Your task to perform on an android device: change the upload size in google photos Image 0: 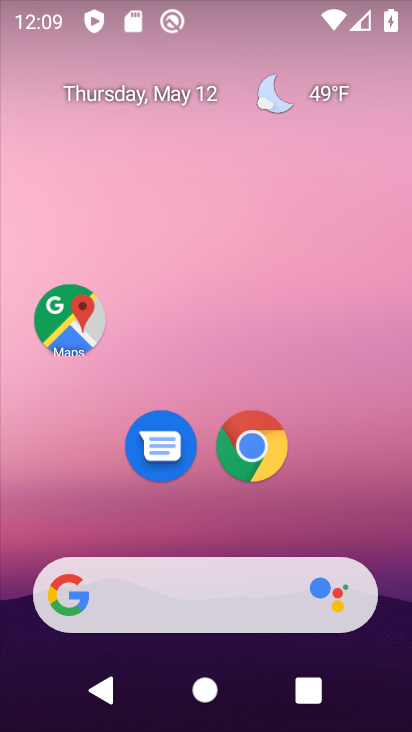
Step 0: press home button
Your task to perform on an android device: change the upload size in google photos Image 1: 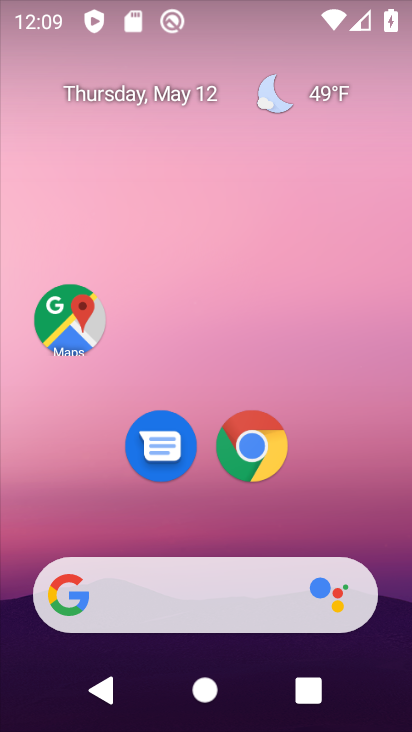
Step 1: press home button
Your task to perform on an android device: change the upload size in google photos Image 2: 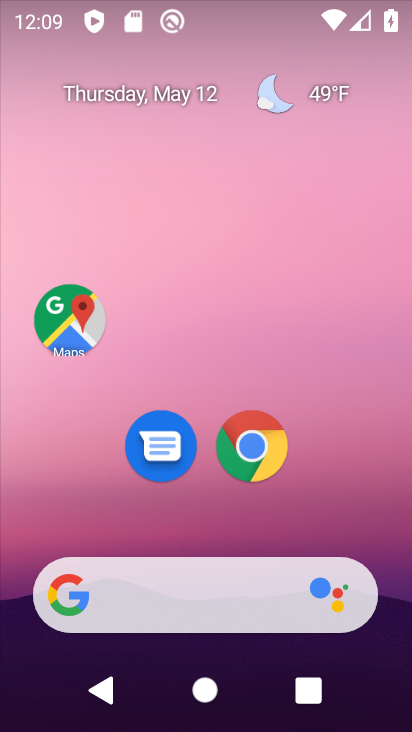
Step 2: drag from (365, 482) to (365, 0)
Your task to perform on an android device: change the upload size in google photos Image 3: 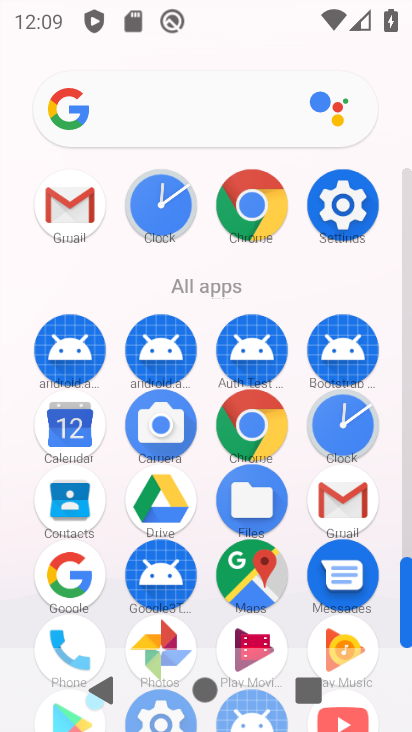
Step 3: click (165, 621)
Your task to perform on an android device: change the upload size in google photos Image 4: 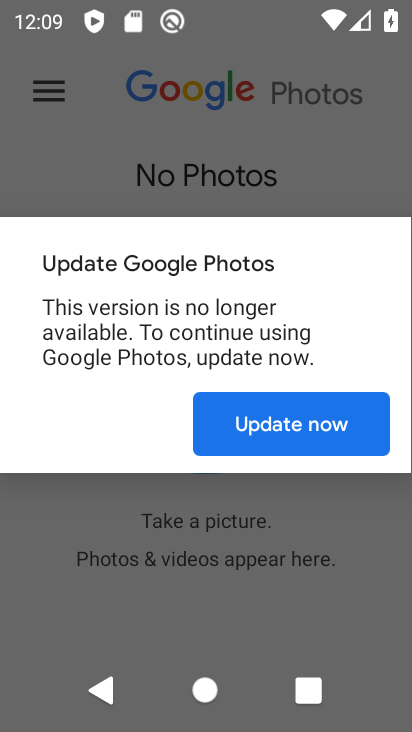
Step 4: click (270, 419)
Your task to perform on an android device: change the upload size in google photos Image 5: 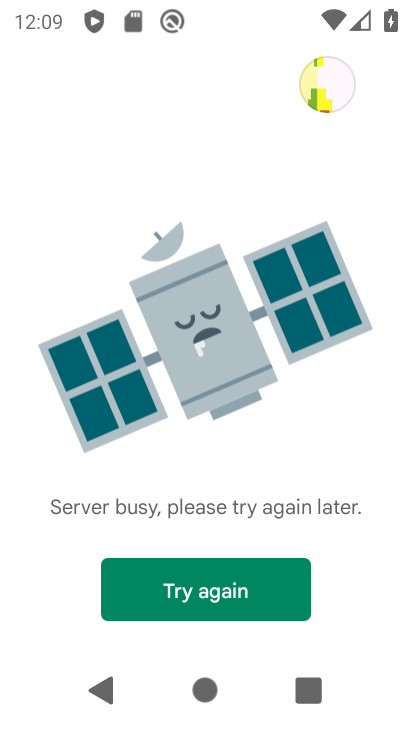
Step 5: task complete